Your task to perform on an android device: turn off translation in the chrome app Image 0: 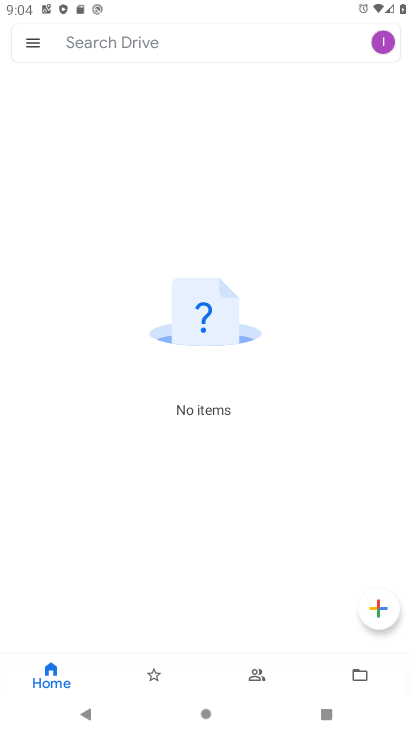
Step 0: press home button
Your task to perform on an android device: turn off translation in the chrome app Image 1: 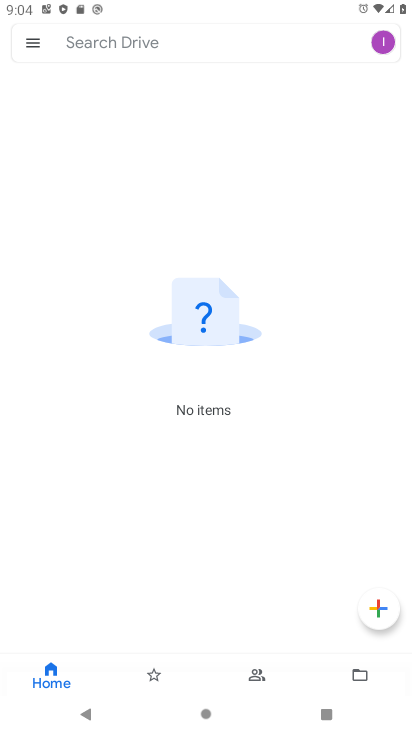
Step 1: press home button
Your task to perform on an android device: turn off translation in the chrome app Image 2: 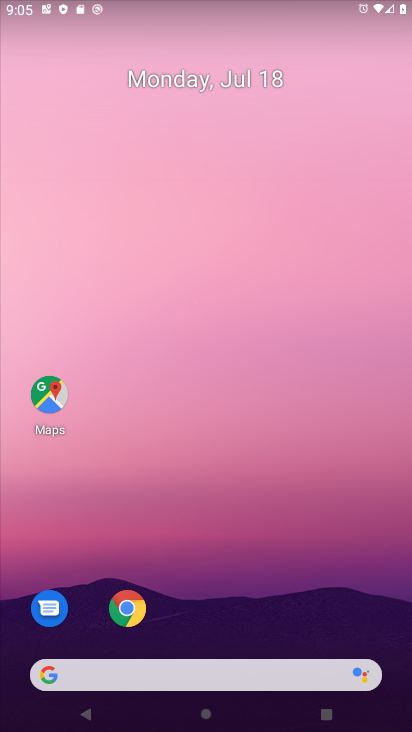
Step 2: drag from (244, 707) to (237, 200)
Your task to perform on an android device: turn off translation in the chrome app Image 3: 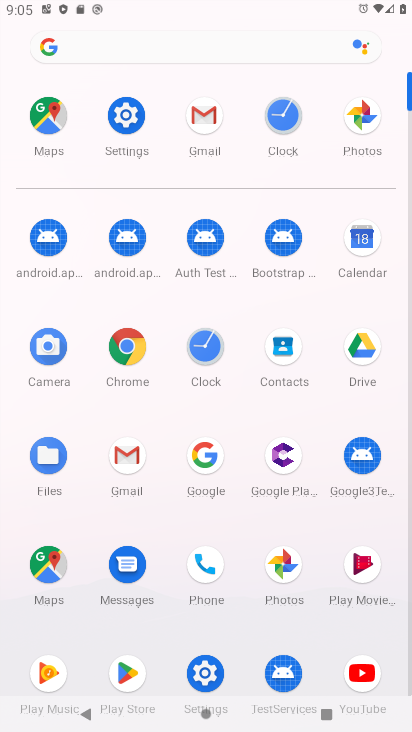
Step 3: click (129, 346)
Your task to perform on an android device: turn off translation in the chrome app Image 4: 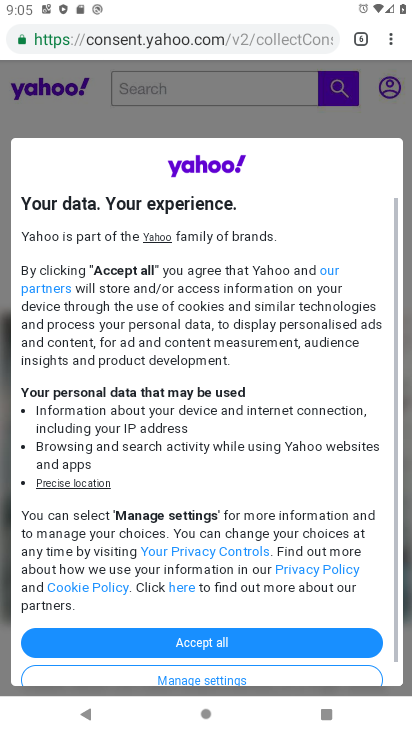
Step 4: click (389, 46)
Your task to perform on an android device: turn off translation in the chrome app Image 5: 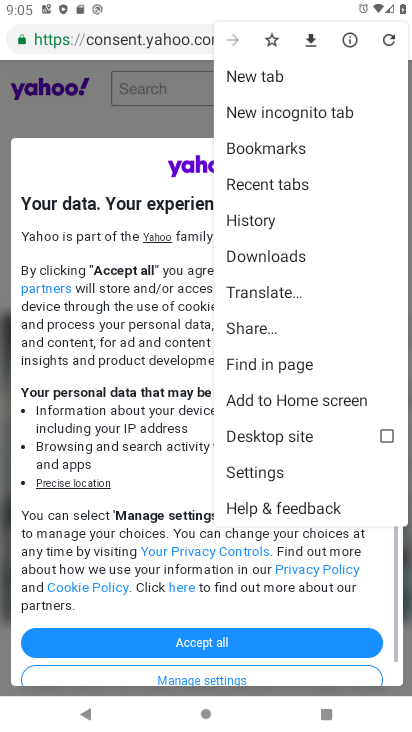
Step 5: click (246, 469)
Your task to perform on an android device: turn off translation in the chrome app Image 6: 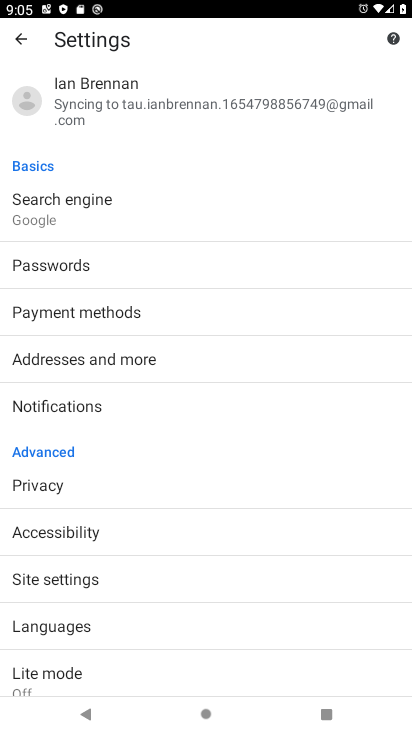
Step 6: click (61, 632)
Your task to perform on an android device: turn off translation in the chrome app Image 7: 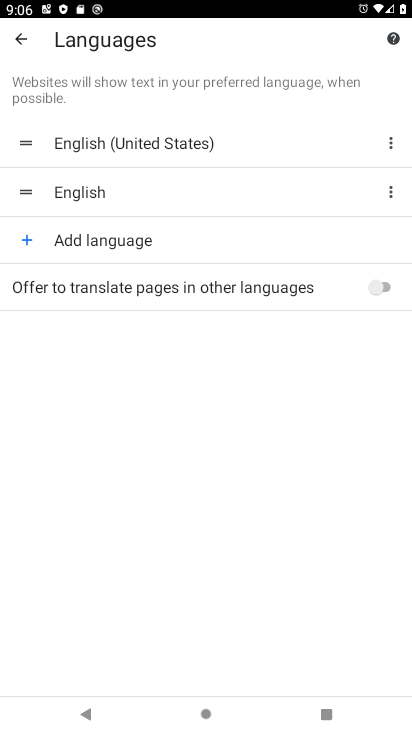
Step 7: task complete